Your task to perform on an android device: check battery use Image 0: 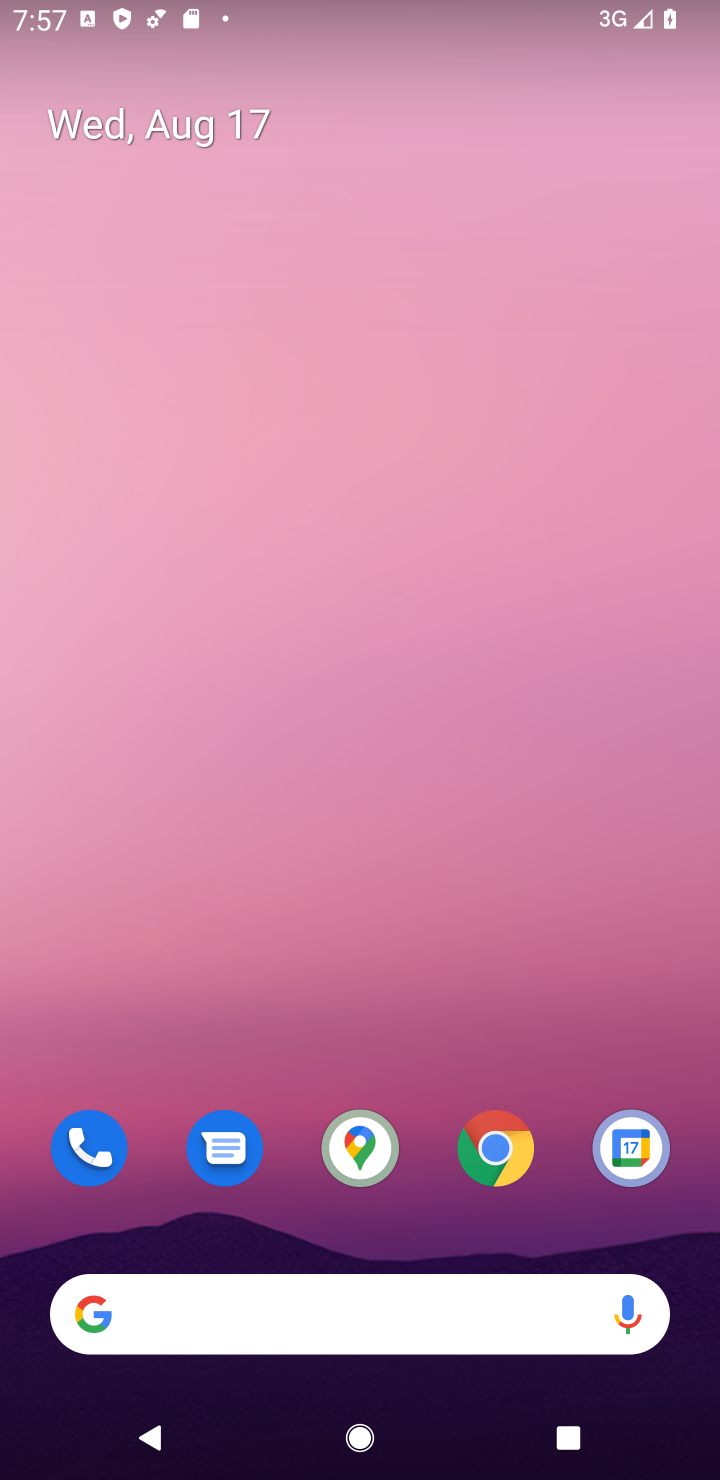
Step 0: drag from (568, 1222) to (510, 84)
Your task to perform on an android device: check battery use Image 1: 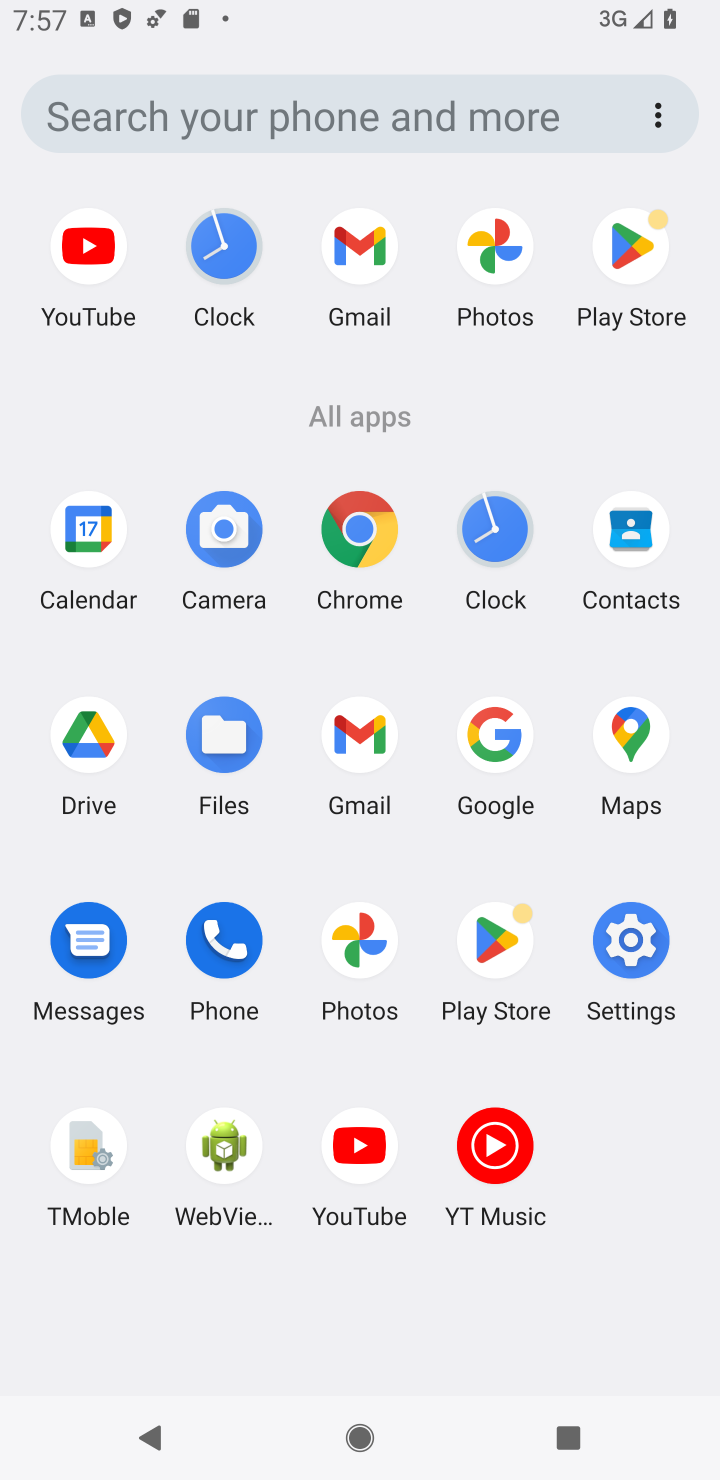
Step 1: click (631, 936)
Your task to perform on an android device: check battery use Image 2: 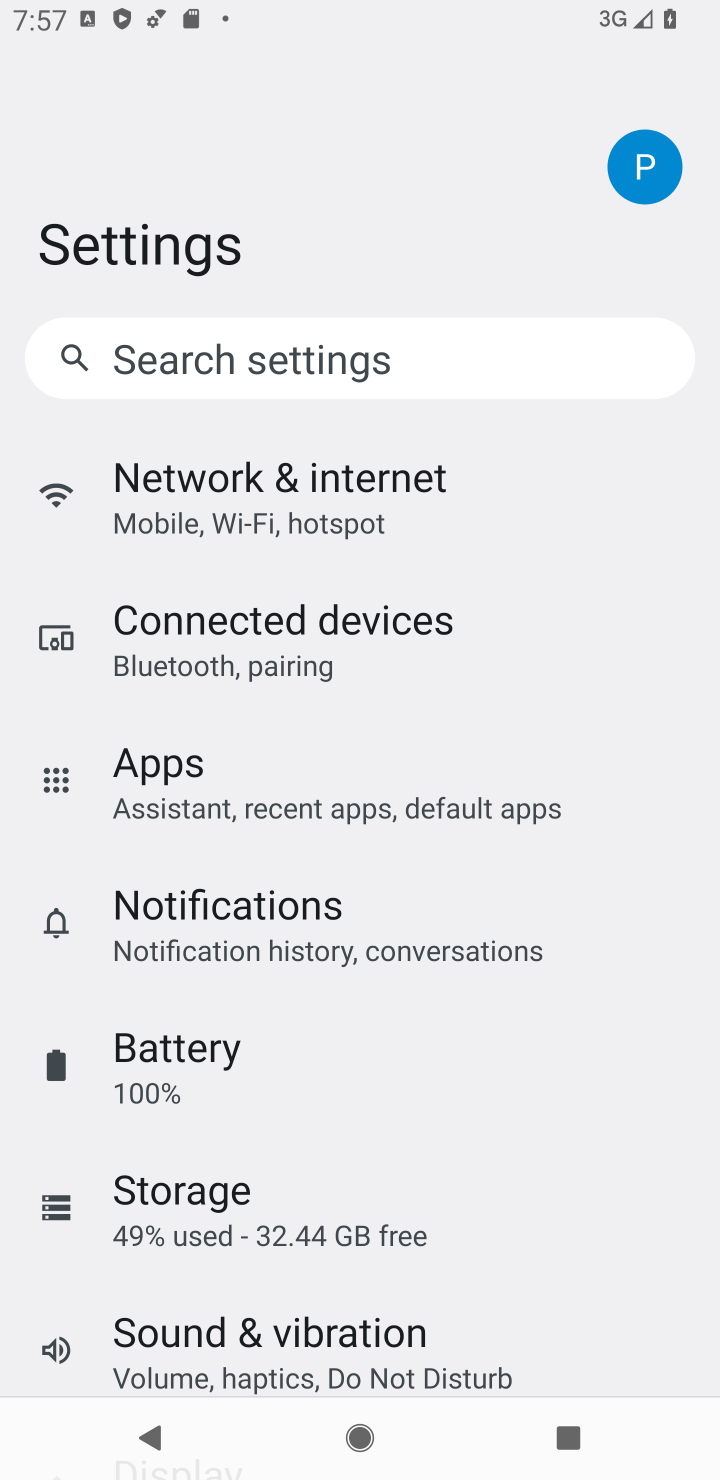
Step 2: click (164, 1066)
Your task to perform on an android device: check battery use Image 3: 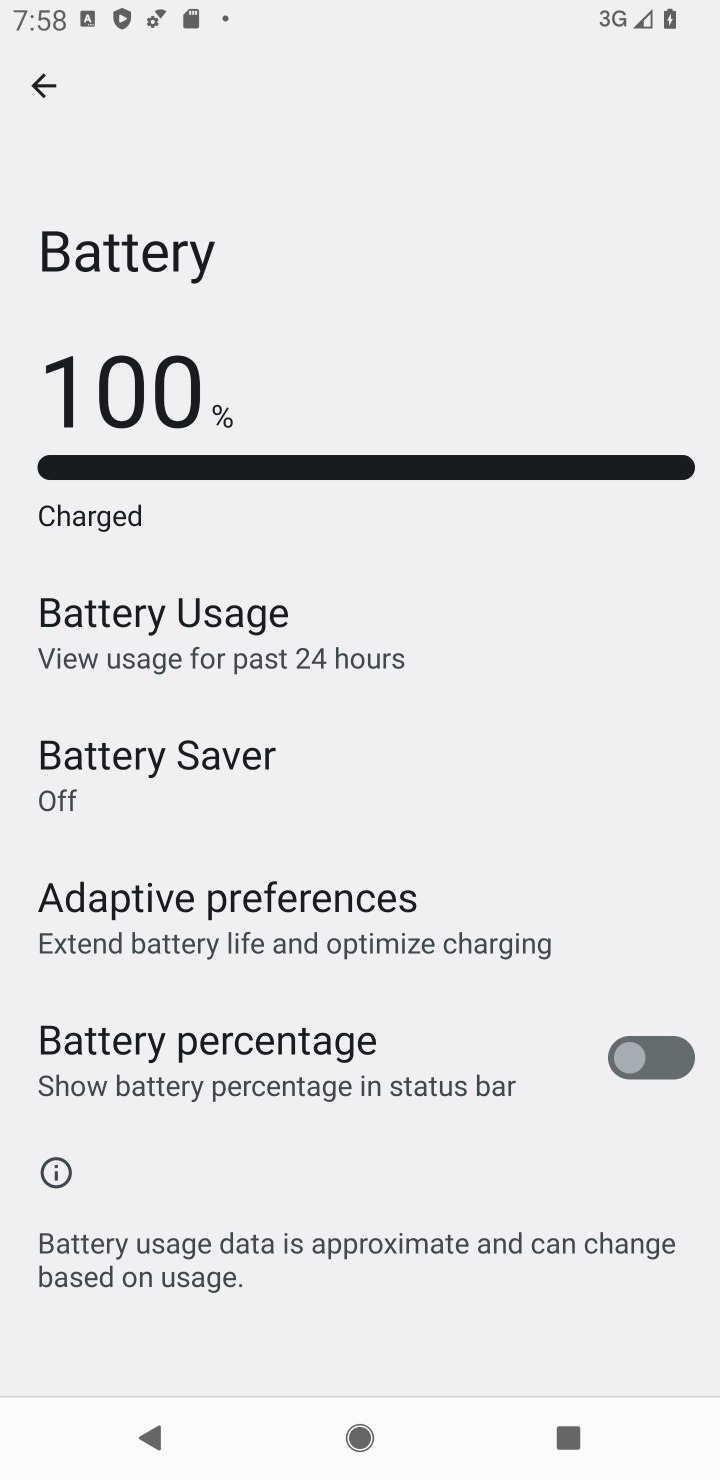
Step 3: click (151, 641)
Your task to perform on an android device: check battery use Image 4: 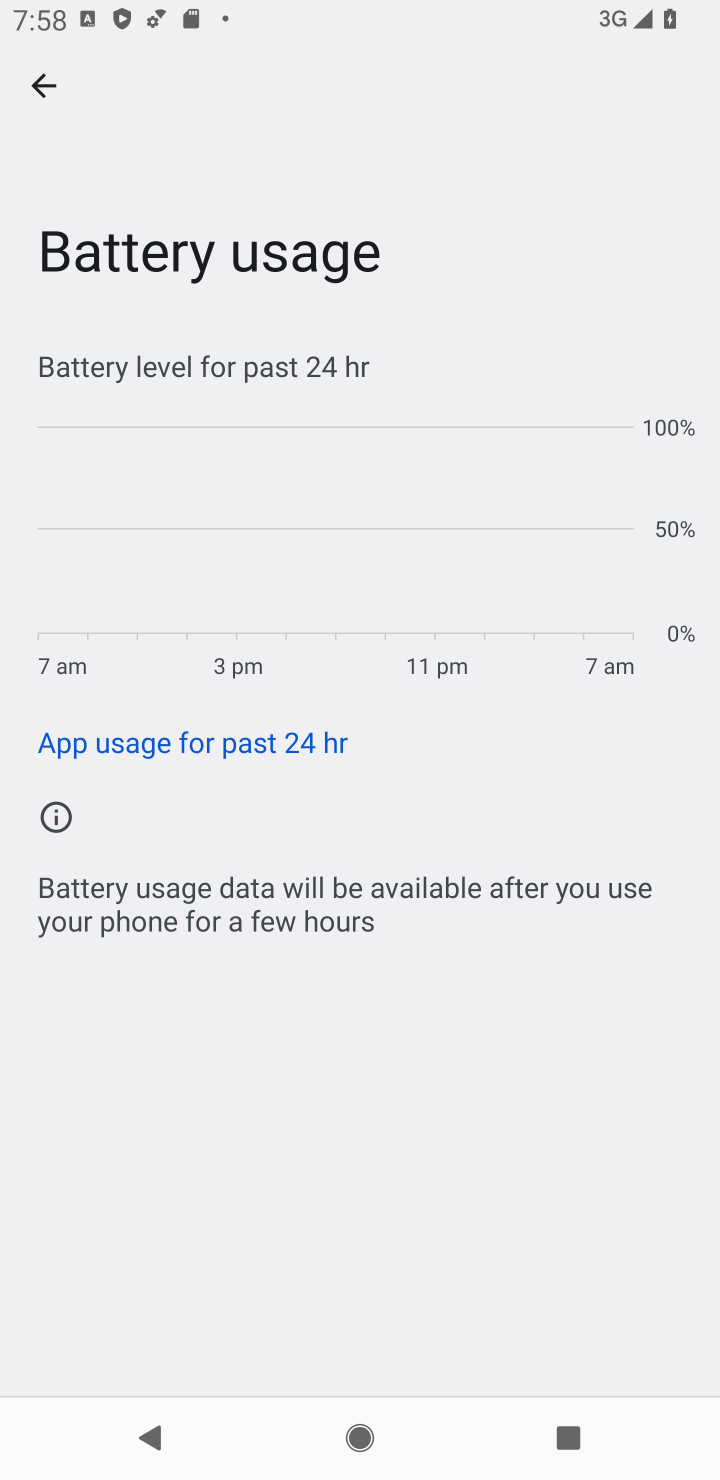
Step 4: task complete